Your task to perform on an android device: delete the emails in spam in the gmail app Image 0: 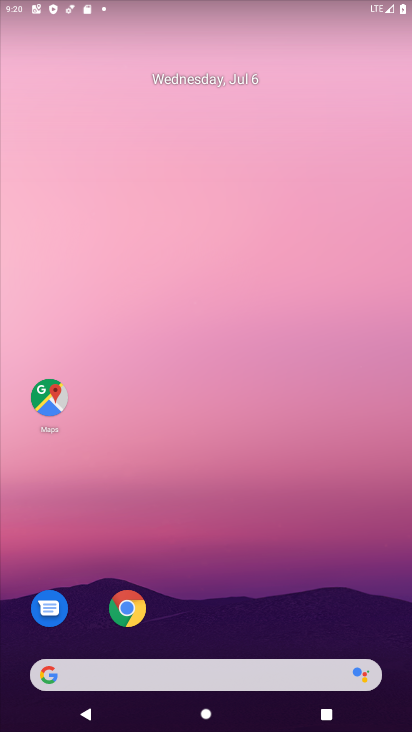
Step 0: drag from (222, 573) to (233, 262)
Your task to perform on an android device: delete the emails in spam in the gmail app Image 1: 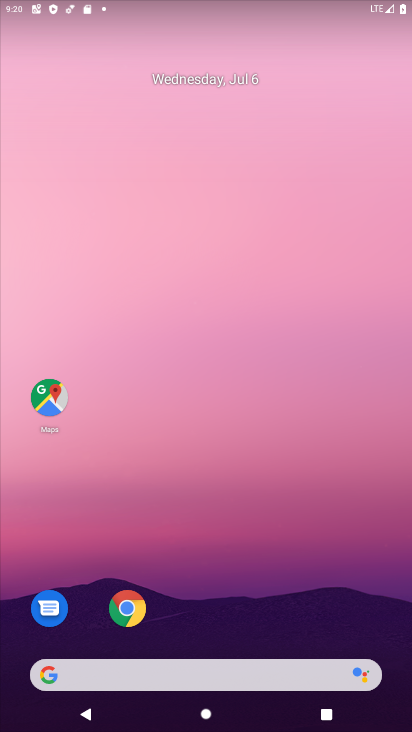
Step 1: click (233, 262)
Your task to perform on an android device: delete the emails in spam in the gmail app Image 2: 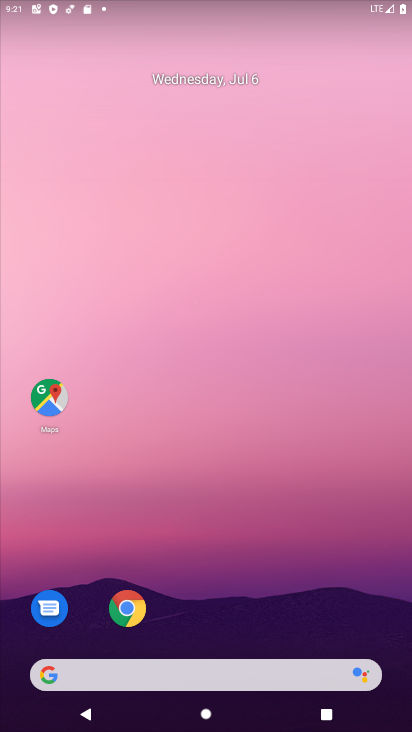
Step 2: drag from (206, 546) to (244, 83)
Your task to perform on an android device: delete the emails in spam in the gmail app Image 3: 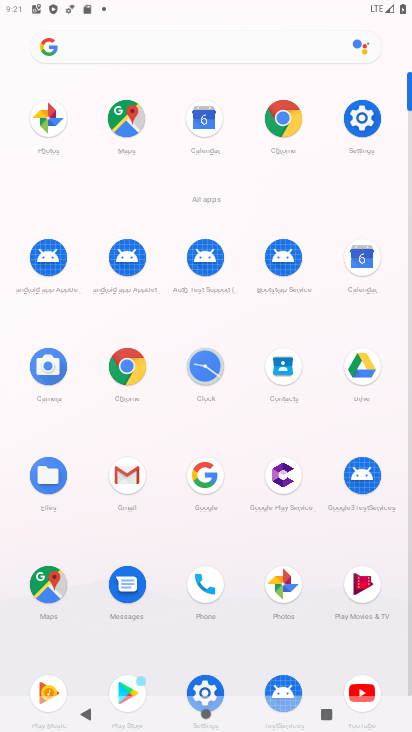
Step 3: click (125, 475)
Your task to perform on an android device: delete the emails in spam in the gmail app Image 4: 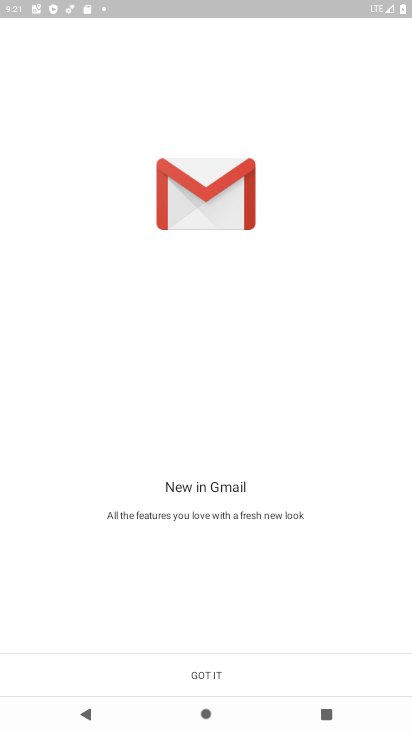
Step 4: click (207, 676)
Your task to perform on an android device: delete the emails in spam in the gmail app Image 5: 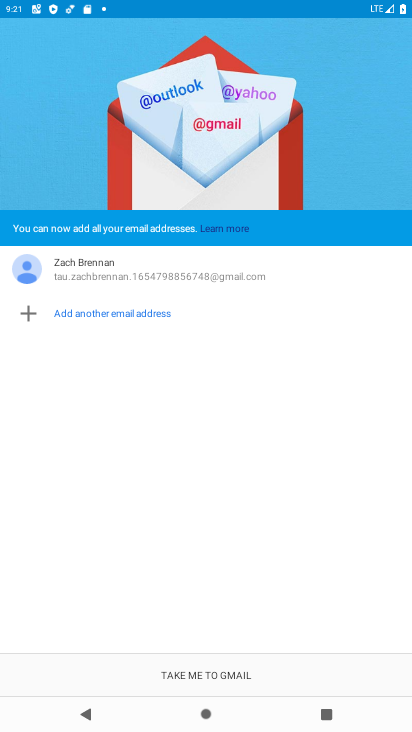
Step 5: click (207, 676)
Your task to perform on an android device: delete the emails in spam in the gmail app Image 6: 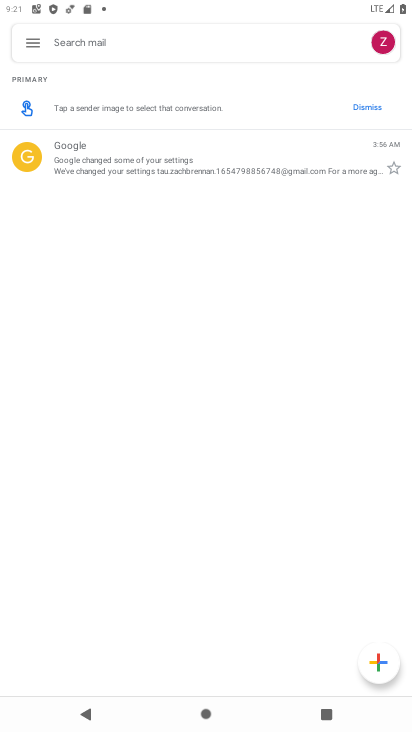
Step 6: click (28, 40)
Your task to perform on an android device: delete the emails in spam in the gmail app Image 7: 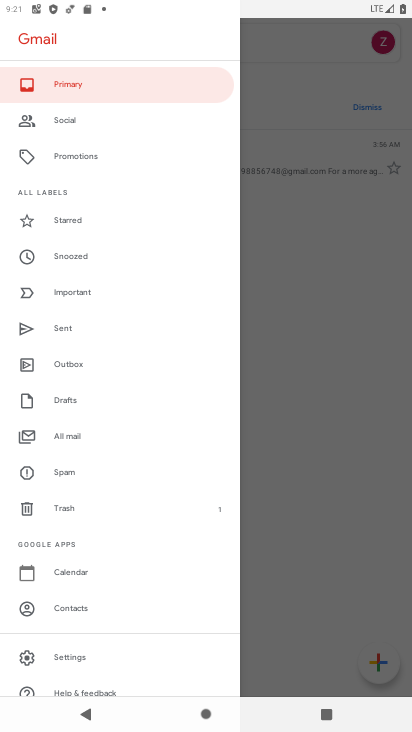
Step 7: click (64, 470)
Your task to perform on an android device: delete the emails in spam in the gmail app Image 8: 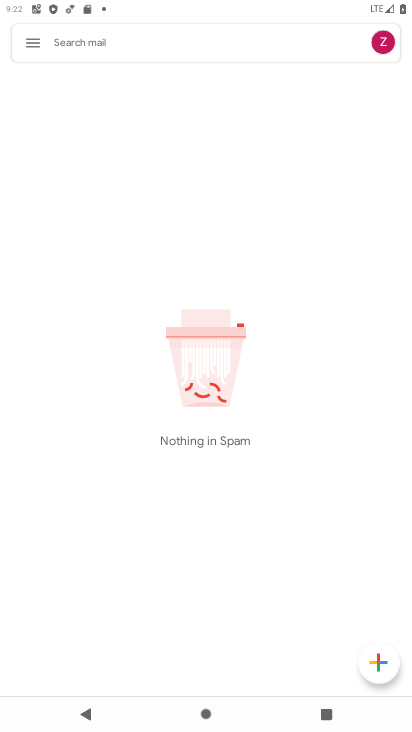
Step 8: task complete